Your task to perform on an android device: toggle pop-ups in chrome Image 0: 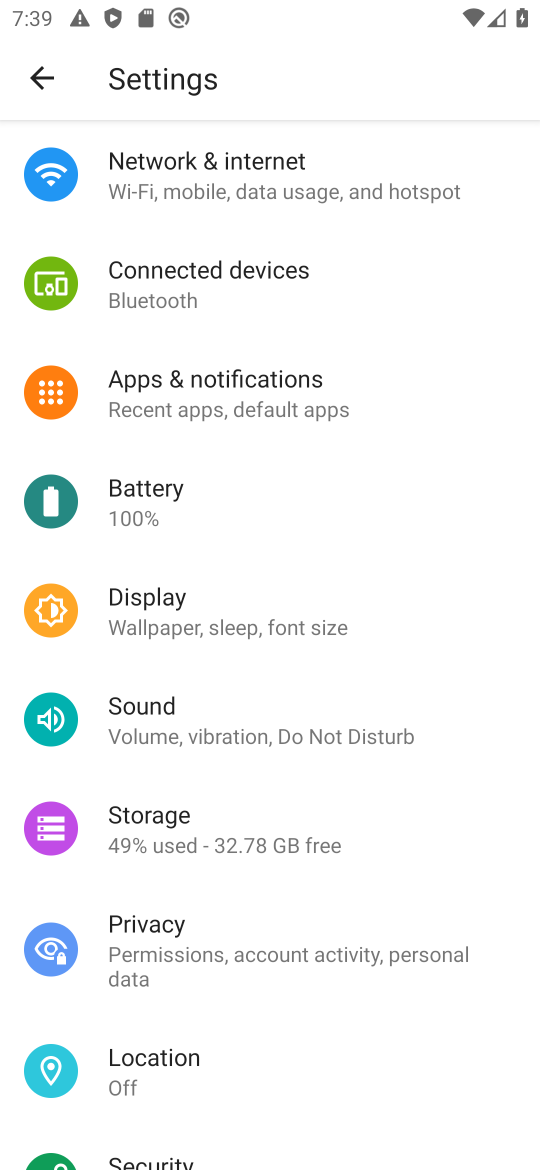
Step 0: press home button
Your task to perform on an android device: toggle pop-ups in chrome Image 1: 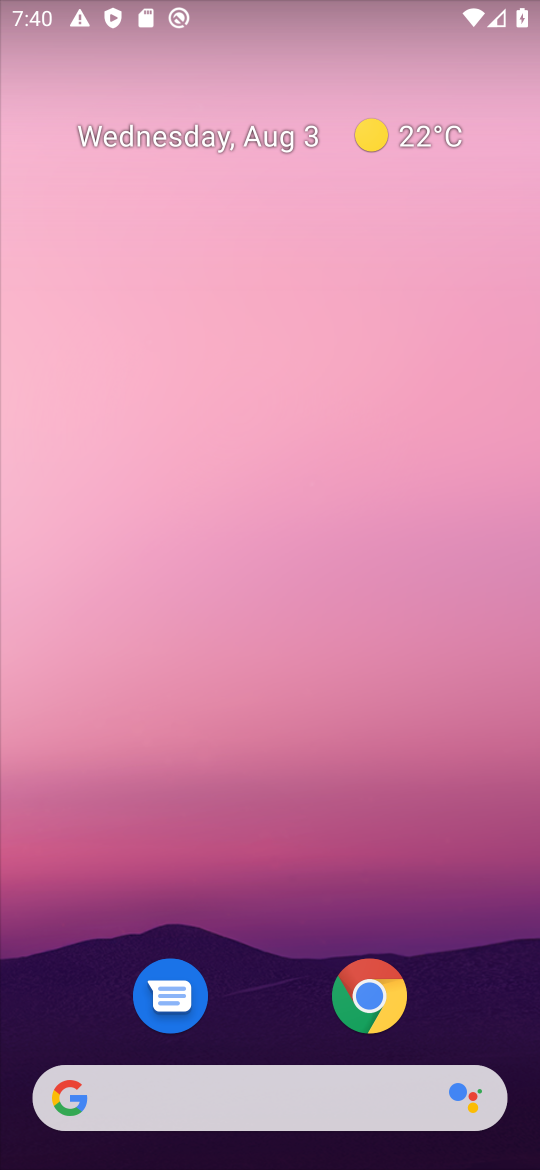
Step 1: click (378, 984)
Your task to perform on an android device: toggle pop-ups in chrome Image 2: 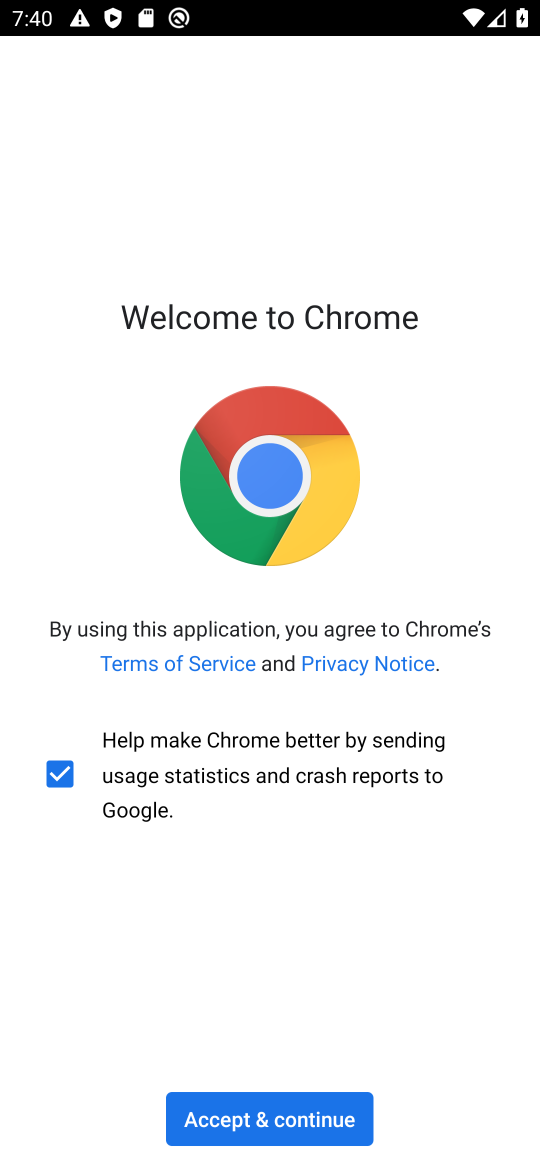
Step 2: click (310, 1113)
Your task to perform on an android device: toggle pop-ups in chrome Image 3: 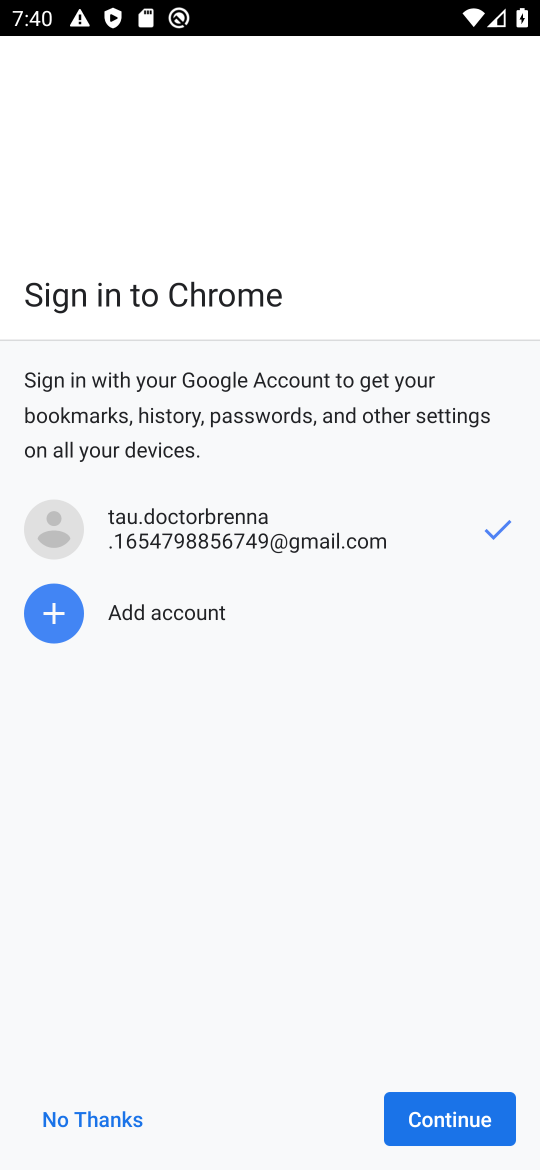
Step 3: click (468, 1103)
Your task to perform on an android device: toggle pop-ups in chrome Image 4: 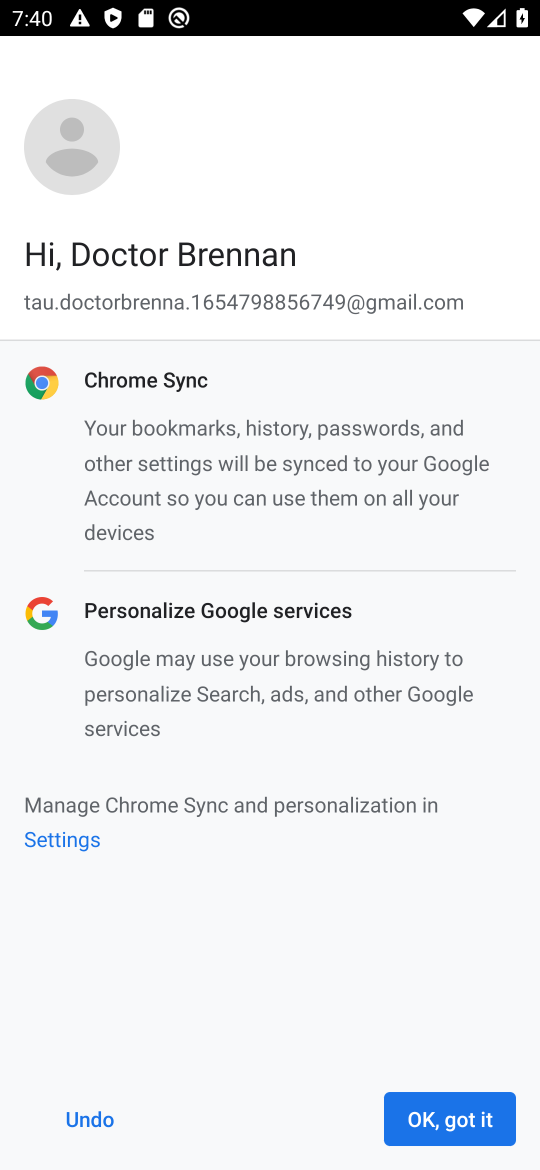
Step 4: click (471, 1098)
Your task to perform on an android device: toggle pop-ups in chrome Image 5: 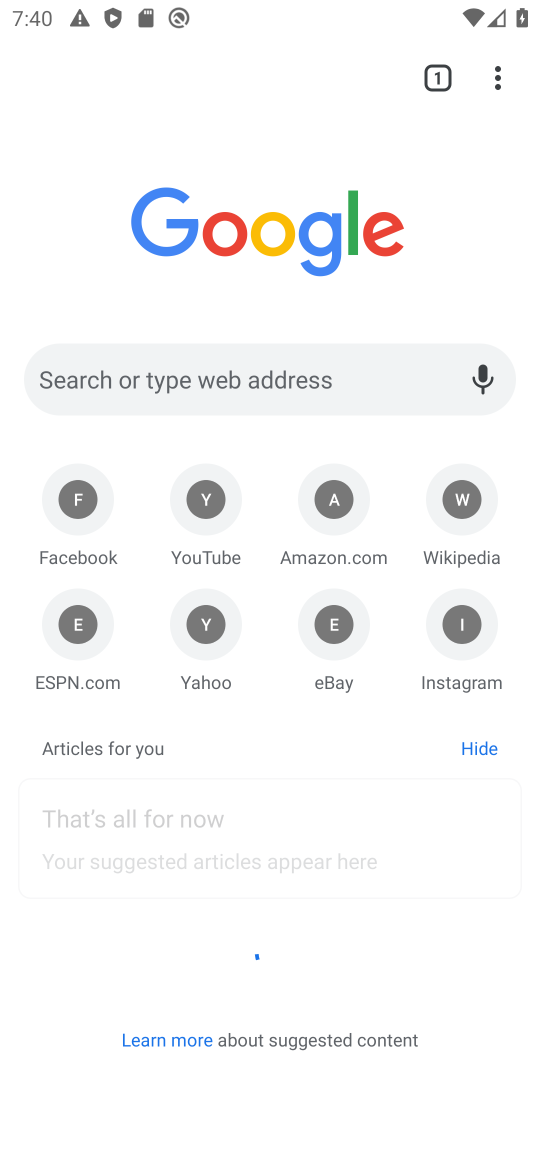
Step 5: click (497, 62)
Your task to perform on an android device: toggle pop-ups in chrome Image 6: 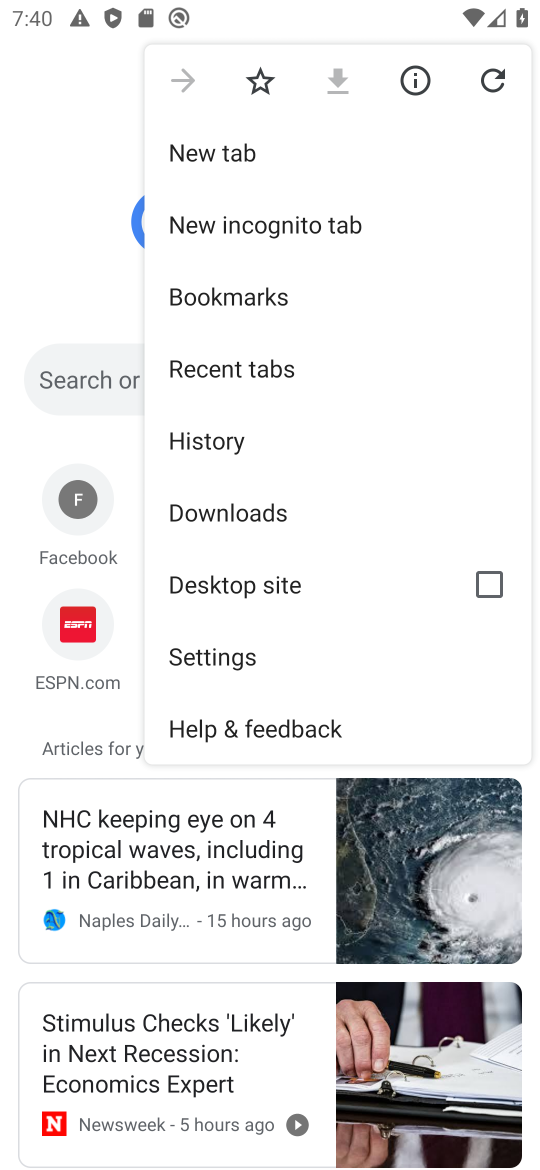
Step 6: click (244, 654)
Your task to perform on an android device: toggle pop-ups in chrome Image 7: 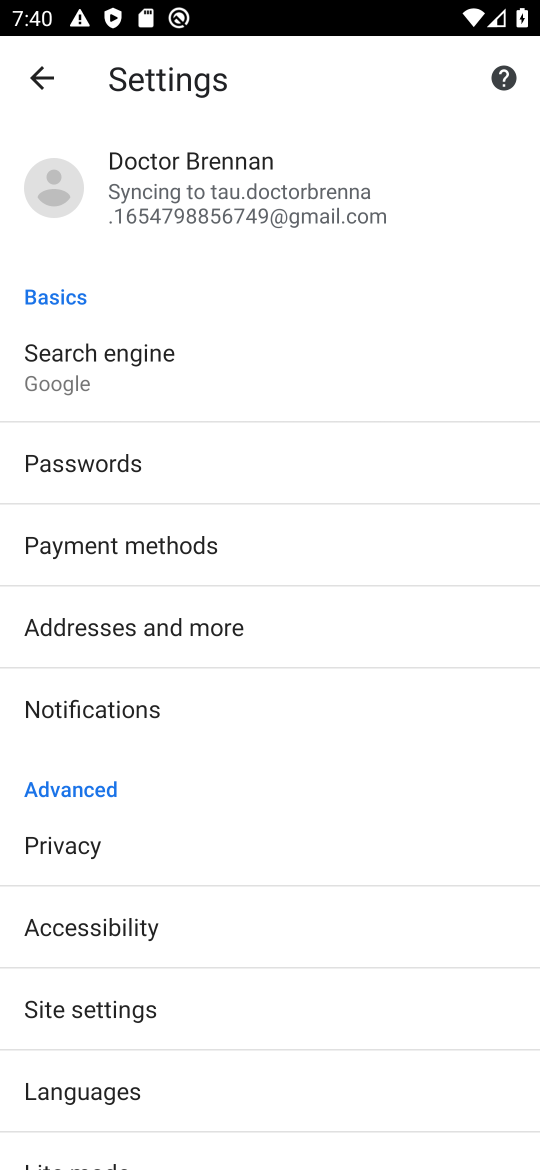
Step 7: drag from (151, 1024) to (176, 593)
Your task to perform on an android device: toggle pop-ups in chrome Image 8: 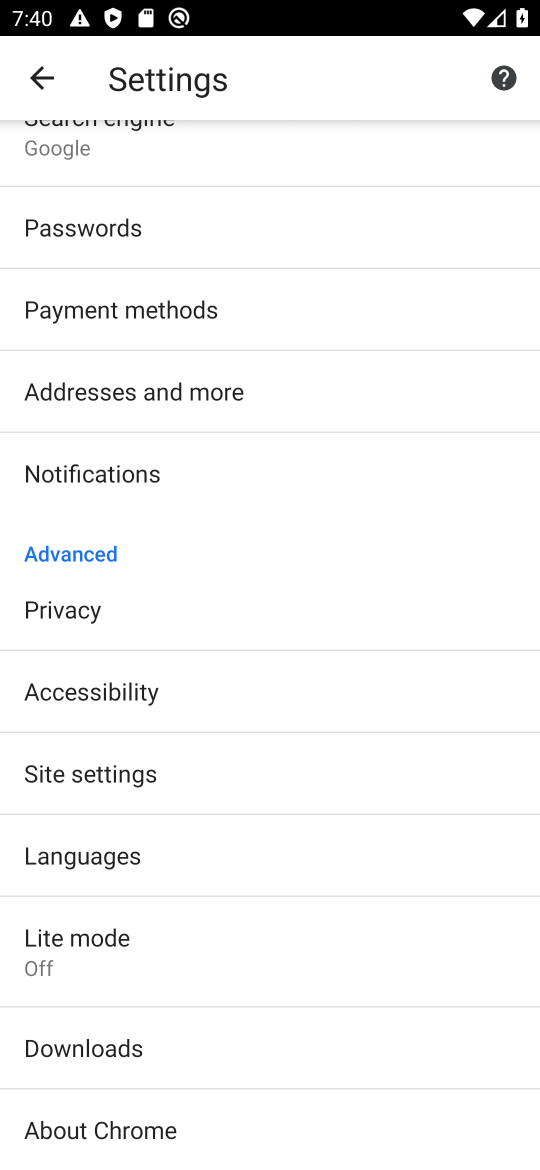
Step 8: click (143, 759)
Your task to perform on an android device: toggle pop-ups in chrome Image 9: 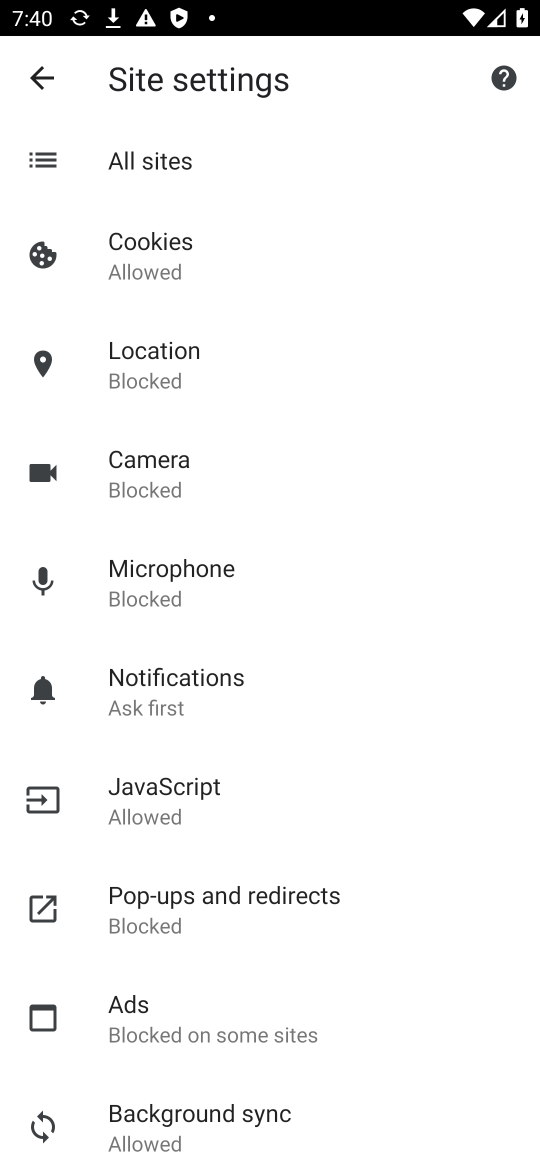
Step 9: click (191, 910)
Your task to perform on an android device: toggle pop-ups in chrome Image 10: 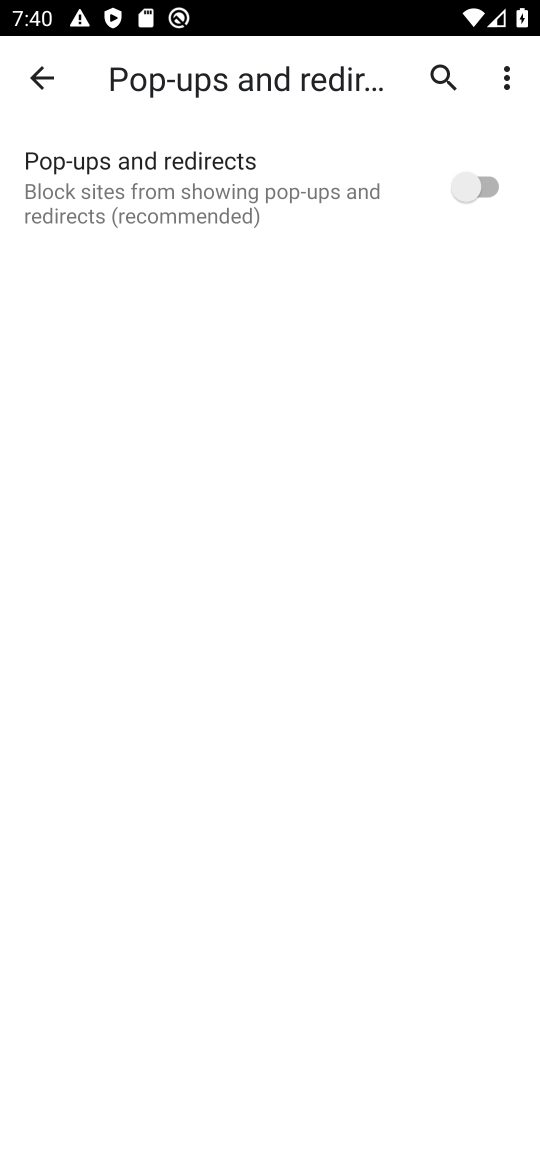
Step 10: click (432, 169)
Your task to perform on an android device: toggle pop-ups in chrome Image 11: 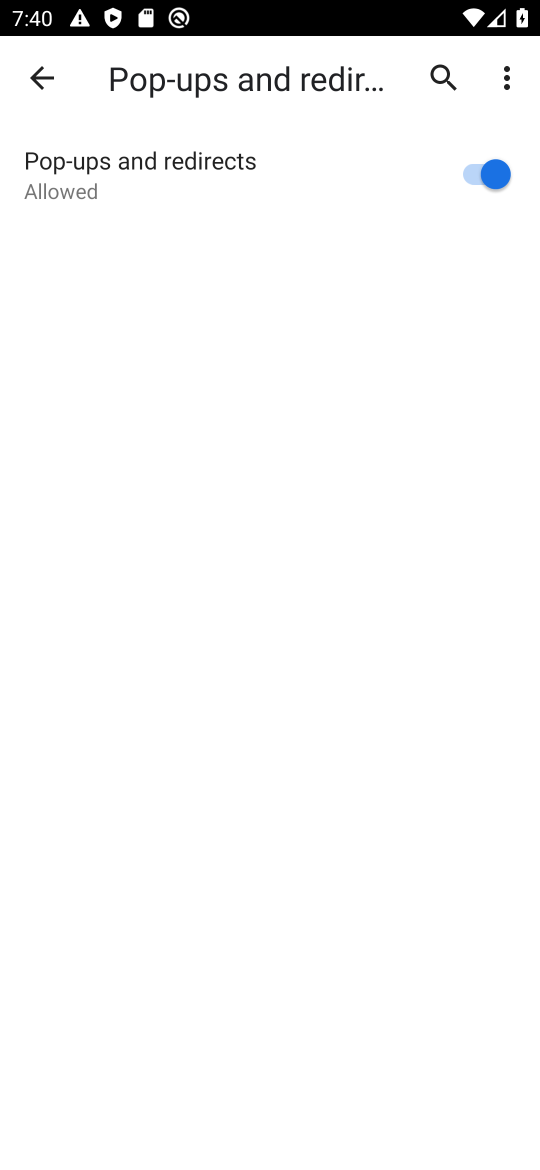
Step 11: task complete